Your task to perform on an android device: Open Chrome and go to the settings page Image 0: 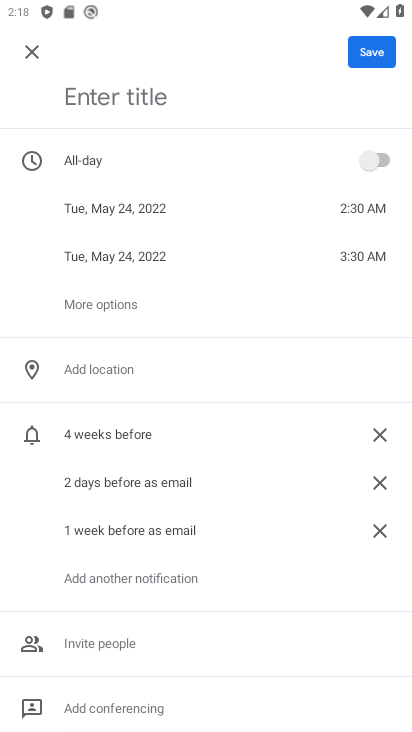
Step 0: press home button
Your task to perform on an android device: Open Chrome and go to the settings page Image 1: 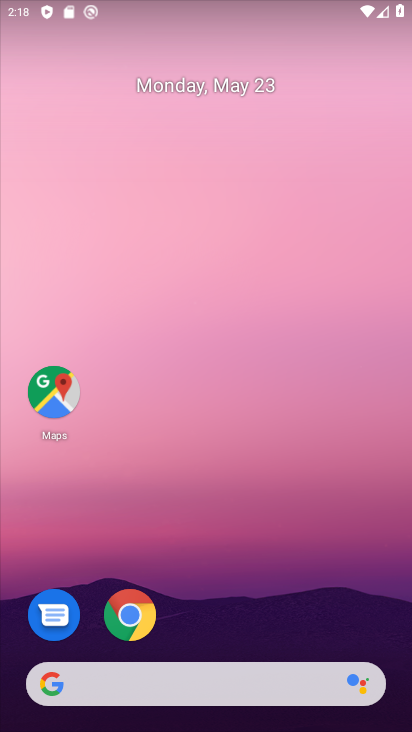
Step 1: click (137, 620)
Your task to perform on an android device: Open Chrome and go to the settings page Image 2: 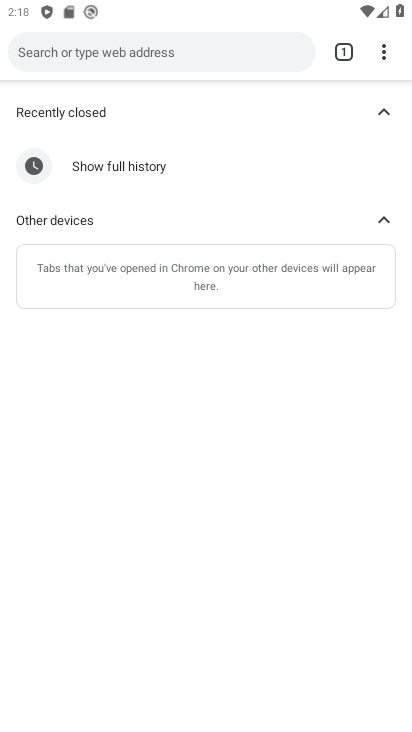
Step 2: click (387, 53)
Your task to perform on an android device: Open Chrome and go to the settings page Image 3: 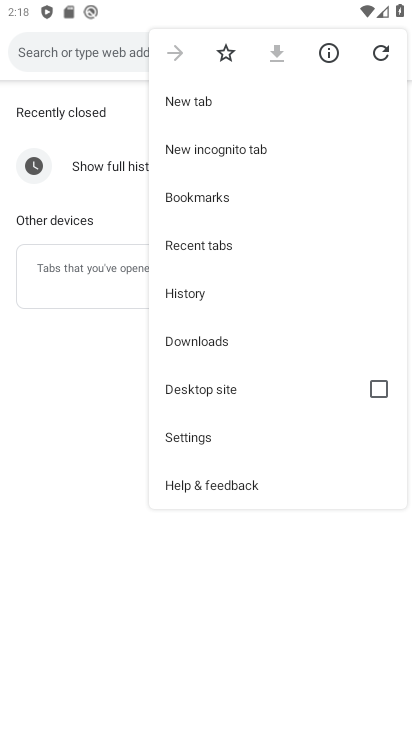
Step 3: click (176, 434)
Your task to perform on an android device: Open Chrome and go to the settings page Image 4: 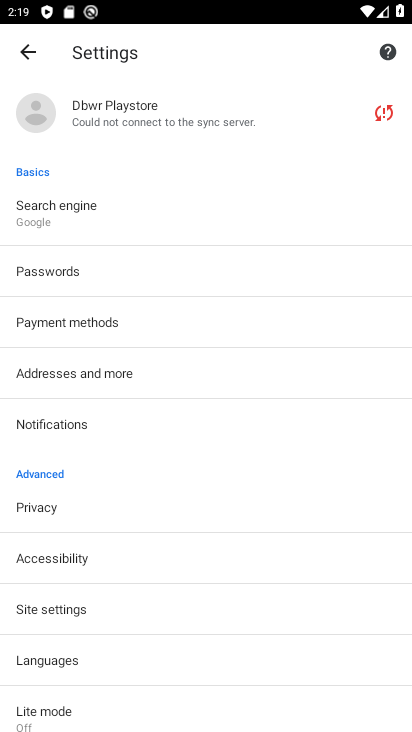
Step 4: task complete